Your task to perform on an android device: turn on bluetooth scan Image 0: 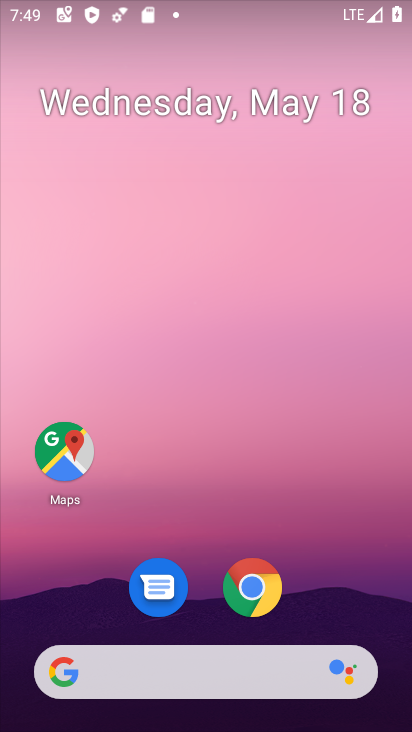
Step 0: drag from (199, 630) to (217, 73)
Your task to perform on an android device: turn on bluetooth scan Image 1: 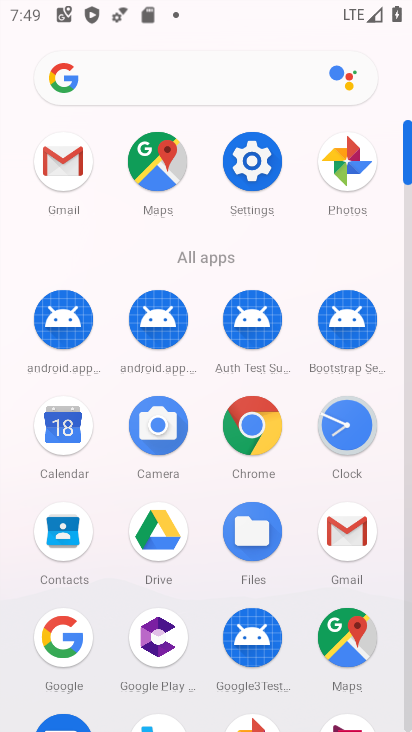
Step 1: click (238, 177)
Your task to perform on an android device: turn on bluetooth scan Image 2: 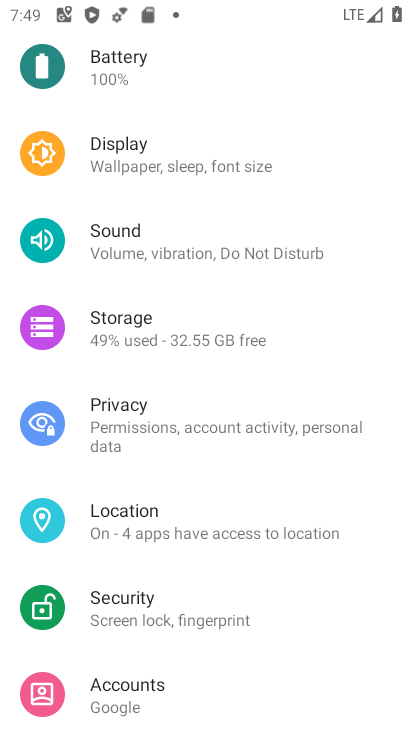
Step 2: click (140, 531)
Your task to perform on an android device: turn on bluetooth scan Image 3: 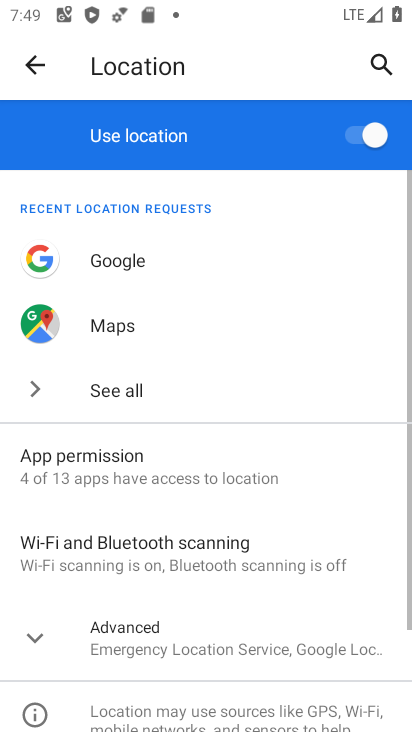
Step 3: click (192, 535)
Your task to perform on an android device: turn on bluetooth scan Image 4: 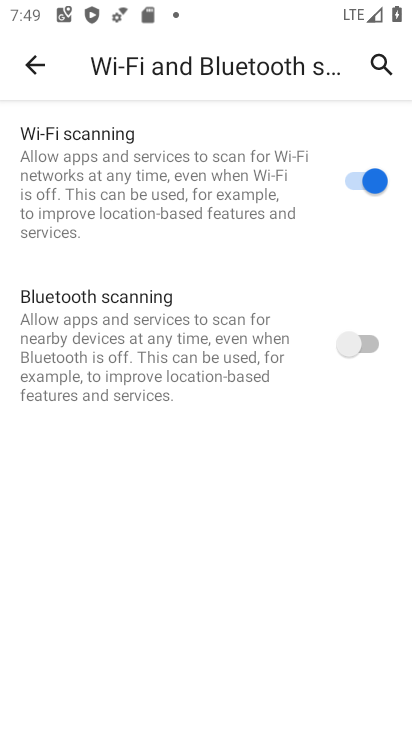
Step 4: click (366, 343)
Your task to perform on an android device: turn on bluetooth scan Image 5: 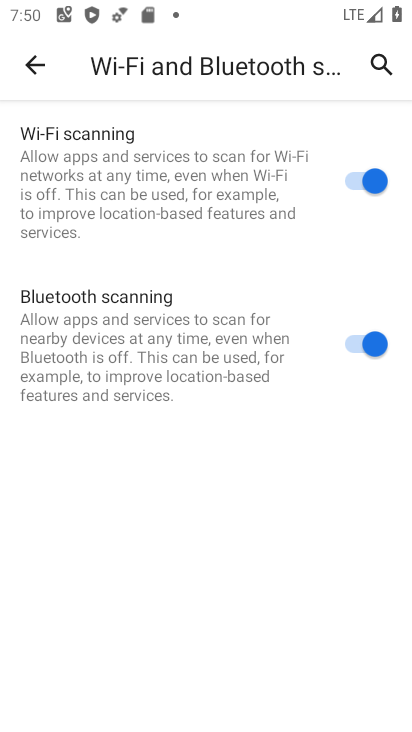
Step 5: task complete